Your task to perform on an android device: Open battery settings Image 0: 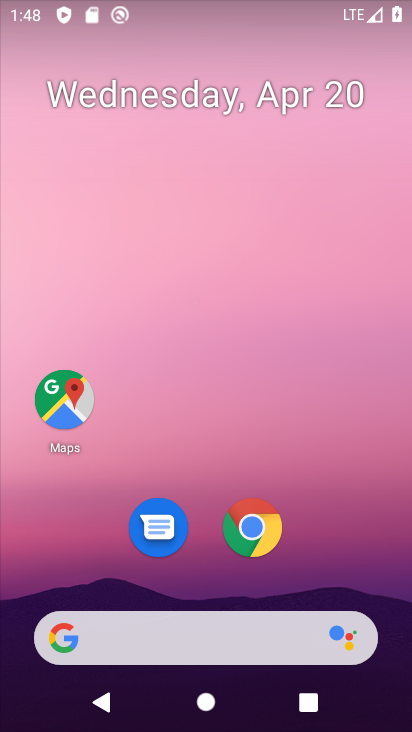
Step 0: drag from (279, 8) to (142, 731)
Your task to perform on an android device: Open battery settings Image 1: 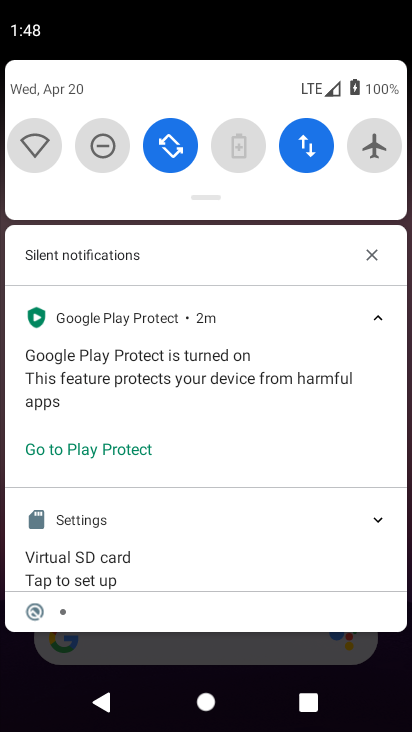
Step 1: drag from (173, 95) to (127, 715)
Your task to perform on an android device: Open battery settings Image 2: 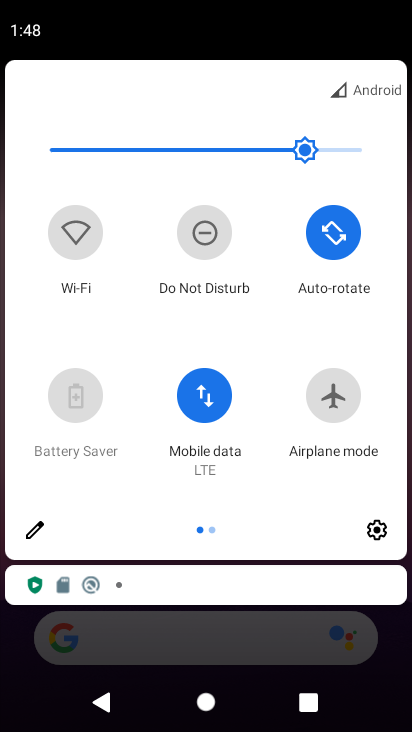
Step 2: click (360, 517)
Your task to perform on an android device: Open battery settings Image 3: 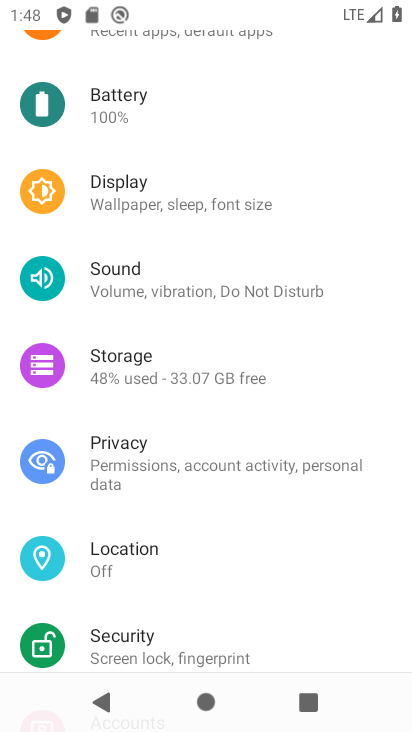
Step 3: click (132, 126)
Your task to perform on an android device: Open battery settings Image 4: 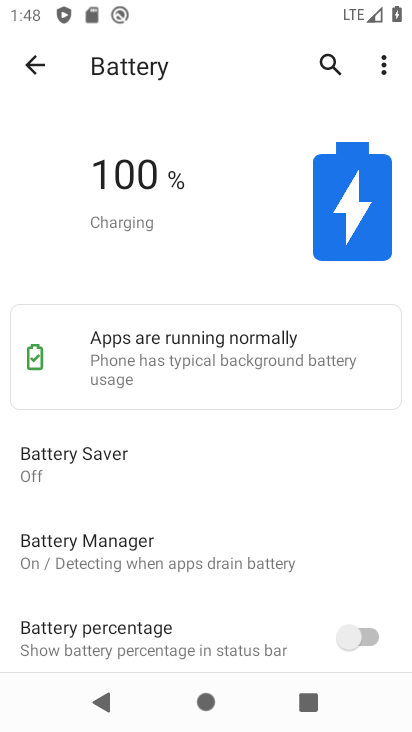
Step 4: click (378, 67)
Your task to perform on an android device: Open battery settings Image 5: 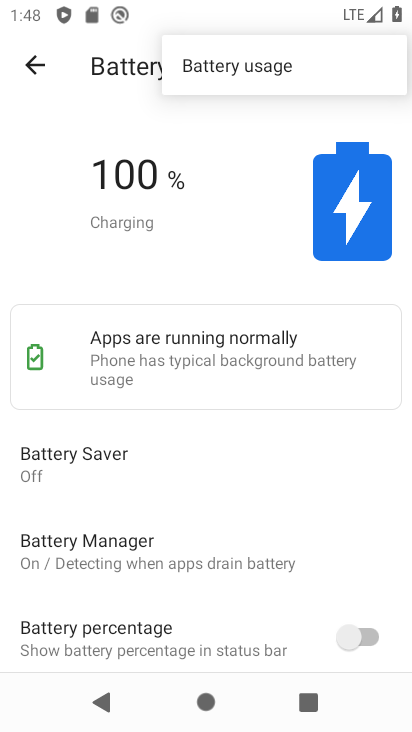
Step 5: click (345, 60)
Your task to perform on an android device: Open battery settings Image 6: 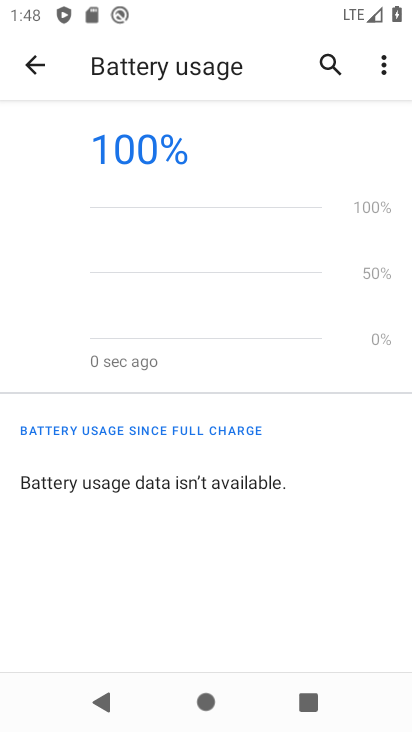
Step 6: task complete